Your task to perform on an android device: Search for Mexican restaurants on Maps Image 0: 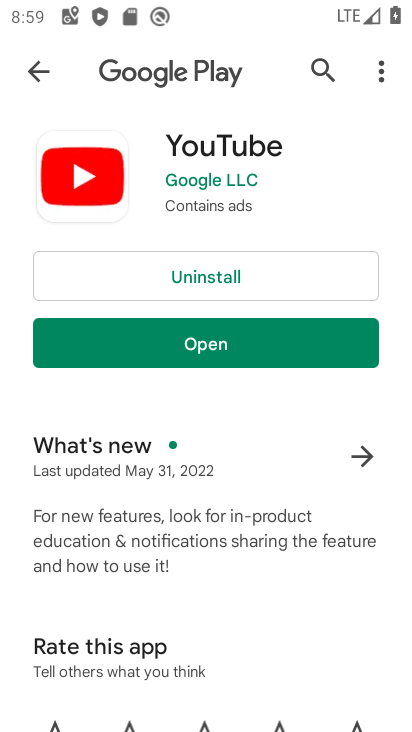
Step 0: press home button
Your task to perform on an android device: Search for Mexican restaurants on Maps Image 1: 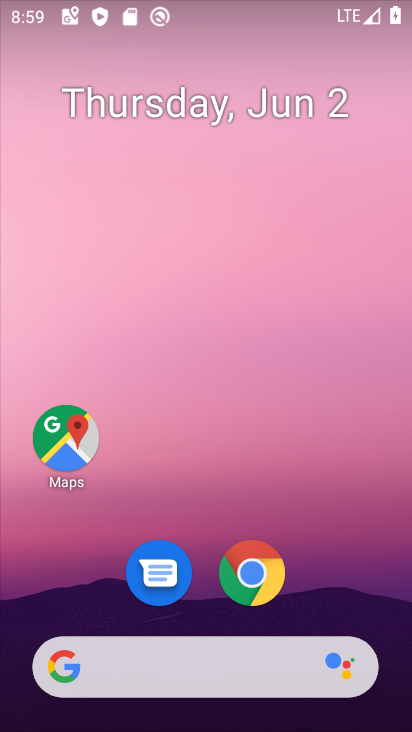
Step 1: click (85, 471)
Your task to perform on an android device: Search for Mexican restaurants on Maps Image 2: 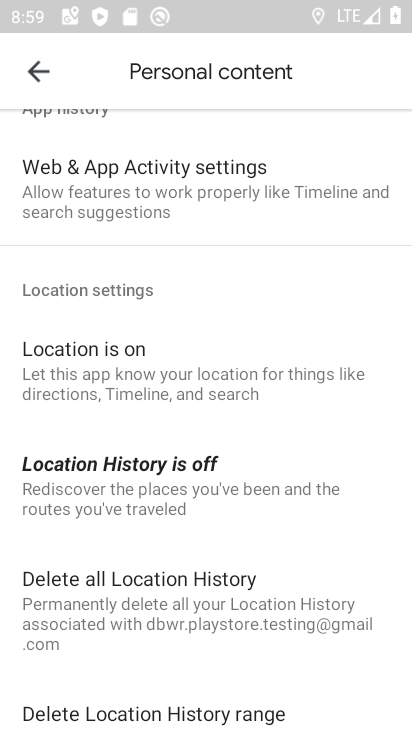
Step 2: click (21, 73)
Your task to perform on an android device: Search for Mexican restaurants on Maps Image 3: 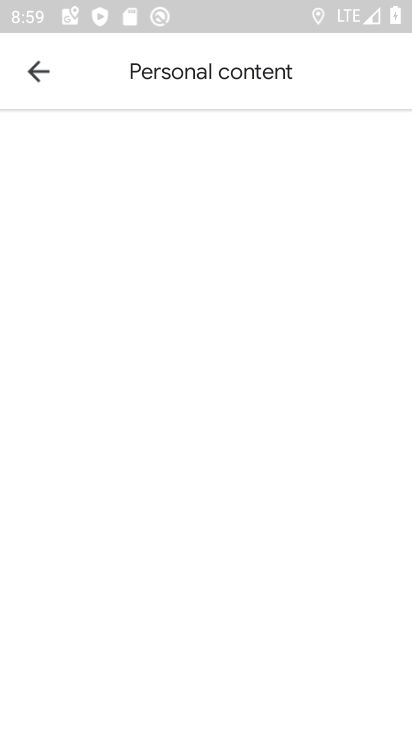
Step 3: click (52, 71)
Your task to perform on an android device: Search for Mexican restaurants on Maps Image 4: 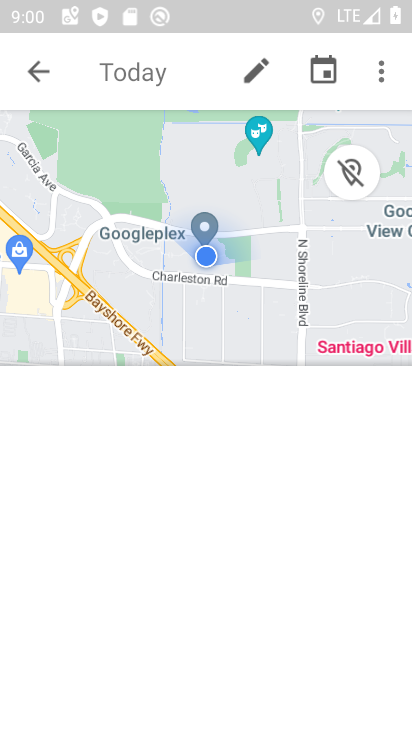
Step 4: click (128, 75)
Your task to perform on an android device: Search for Mexican restaurants on Maps Image 5: 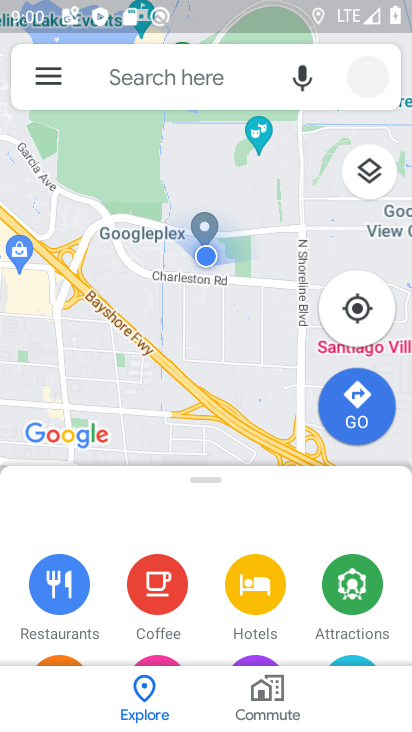
Step 5: click (128, 75)
Your task to perform on an android device: Search for Mexican restaurants on Maps Image 6: 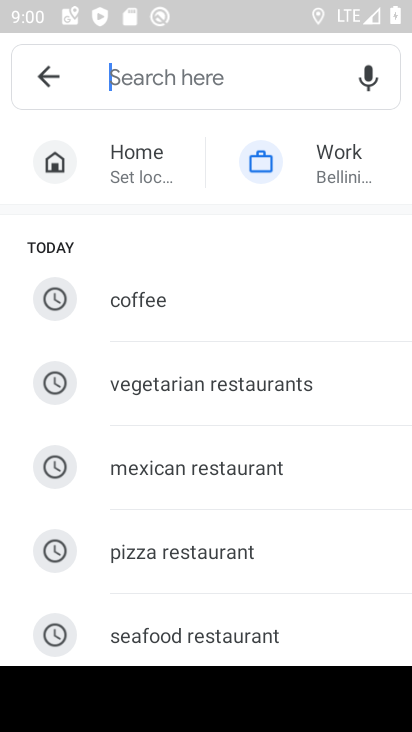
Step 6: type " Mexican restaurants"
Your task to perform on an android device: Search for Mexican restaurants on Maps Image 7: 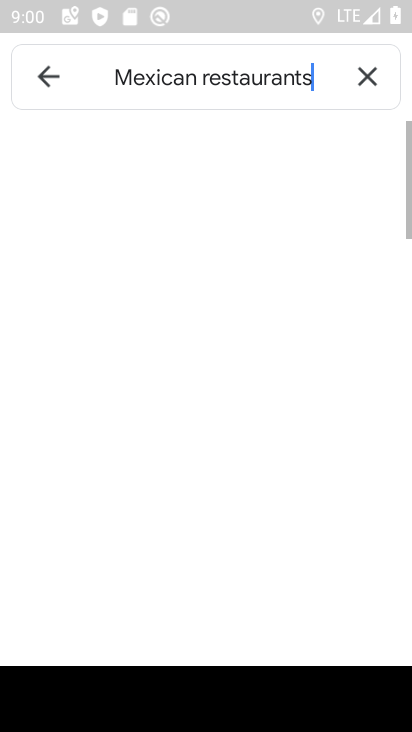
Step 7: click (232, 146)
Your task to perform on an android device: Search for Mexican restaurants on Maps Image 8: 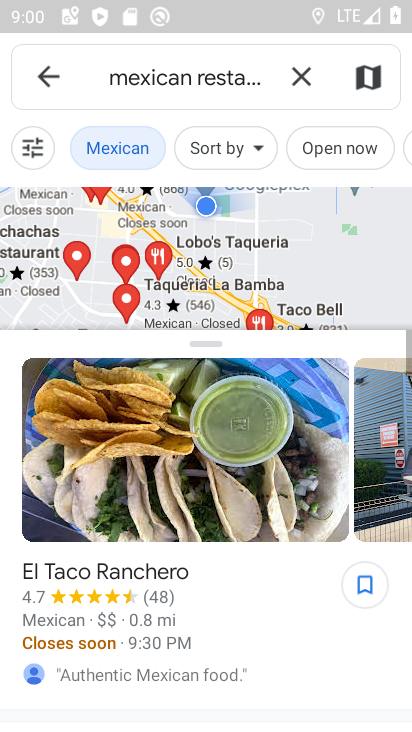
Step 8: task complete